Your task to perform on an android device: Open Google Chrome Image 0: 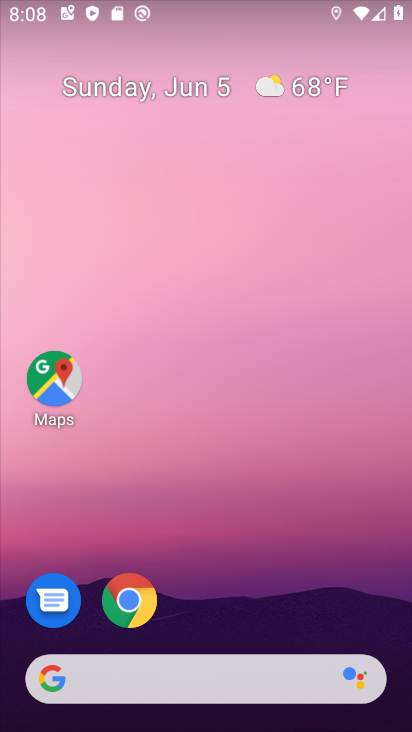
Step 0: click (127, 601)
Your task to perform on an android device: Open Google Chrome Image 1: 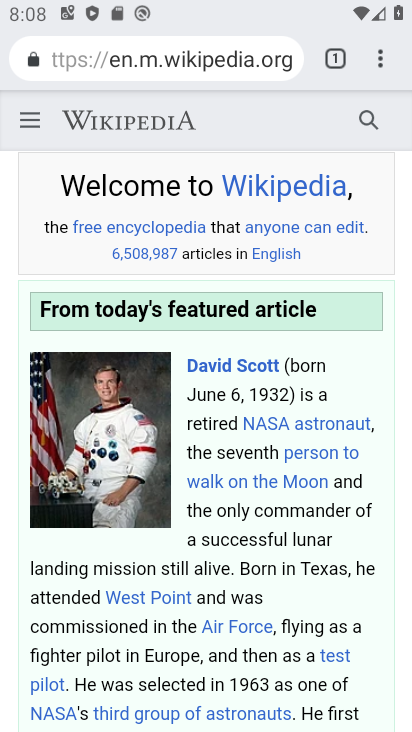
Step 1: click (379, 57)
Your task to perform on an android device: Open Google Chrome Image 2: 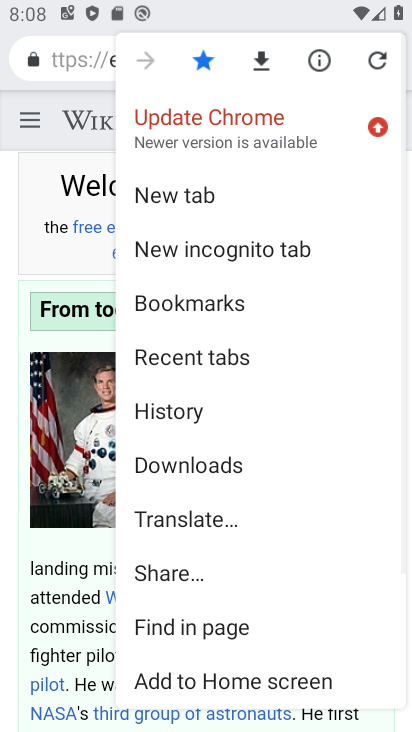
Step 2: click (236, 183)
Your task to perform on an android device: Open Google Chrome Image 3: 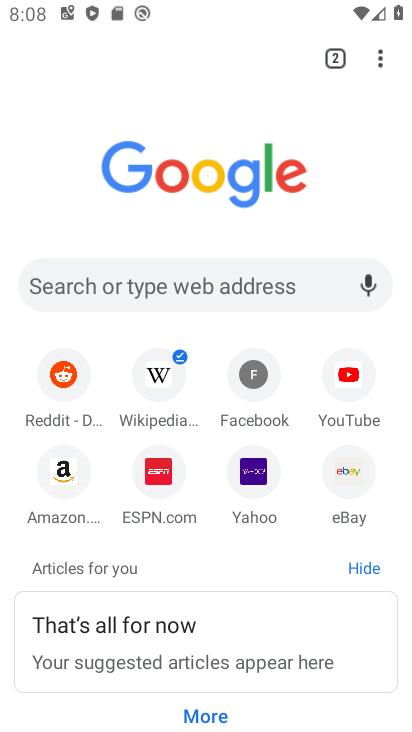
Step 3: task complete